Your task to perform on an android device: turn off sleep mode Image 0: 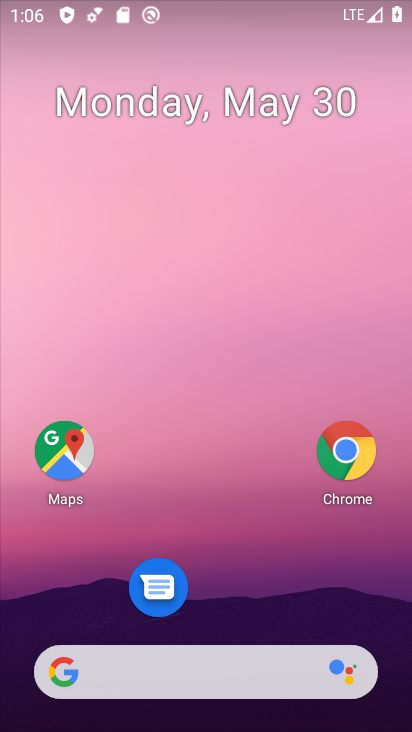
Step 0: drag from (239, 379) to (284, 27)
Your task to perform on an android device: turn off sleep mode Image 1: 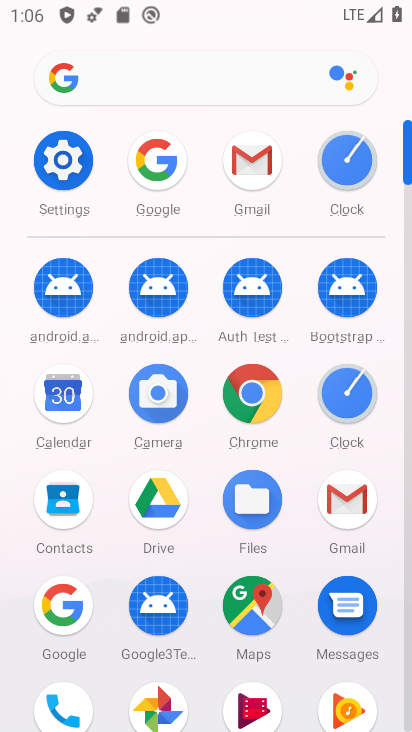
Step 1: click (58, 166)
Your task to perform on an android device: turn off sleep mode Image 2: 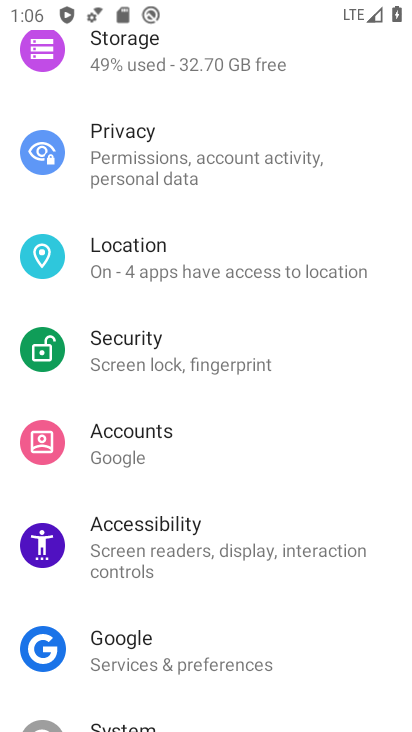
Step 2: drag from (196, 165) to (235, 581)
Your task to perform on an android device: turn off sleep mode Image 3: 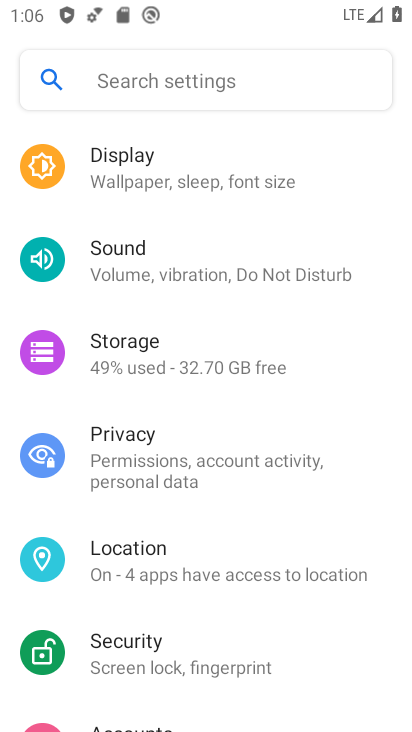
Step 3: click (186, 163)
Your task to perform on an android device: turn off sleep mode Image 4: 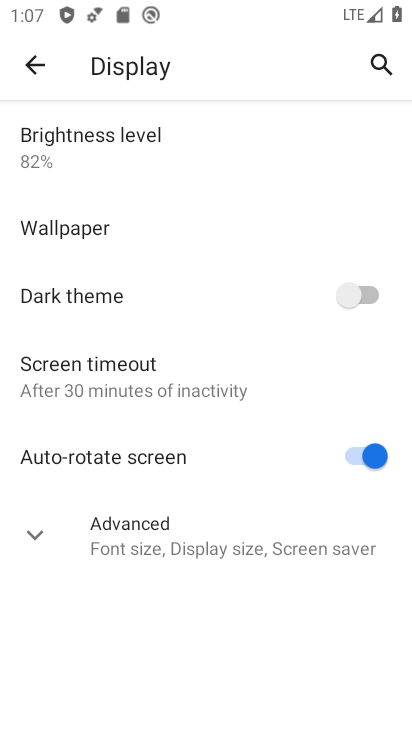
Step 4: click (79, 356)
Your task to perform on an android device: turn off sleep mode Image 5: 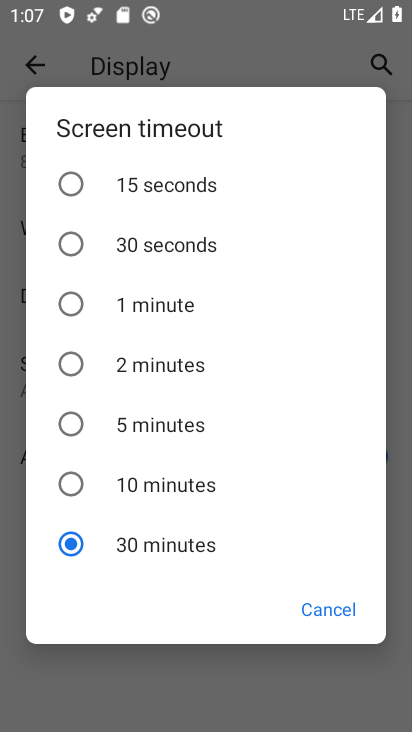
Step 5: task complete